Your task to perform on an android device: open app "Pandora - Music & Podcasts" Image 0: 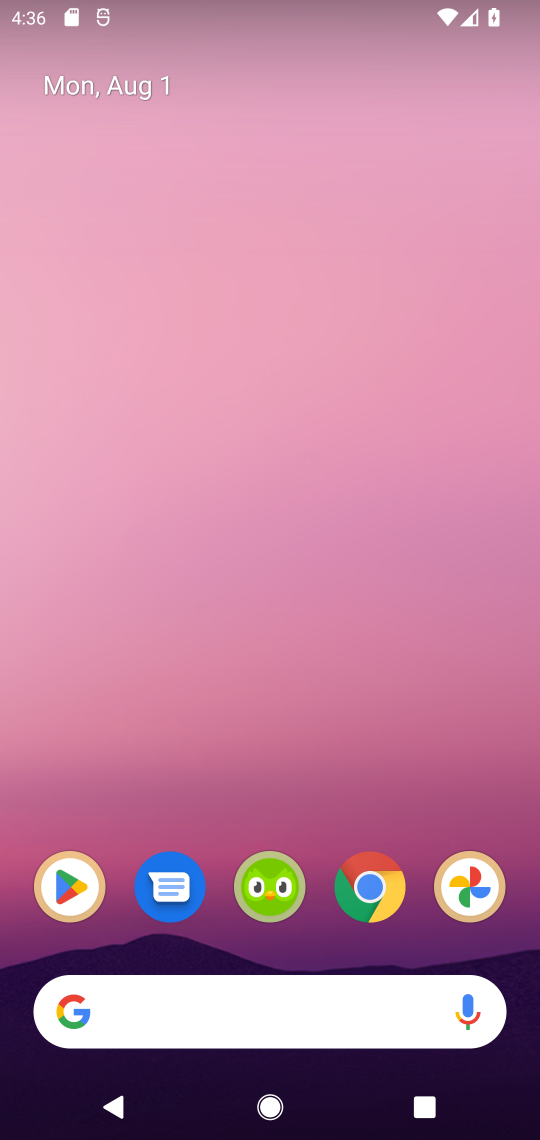
Step 0: click (38, 839)
Your task to perform on an android device: open app "Pandora - Music & Podcasts" Image 1: 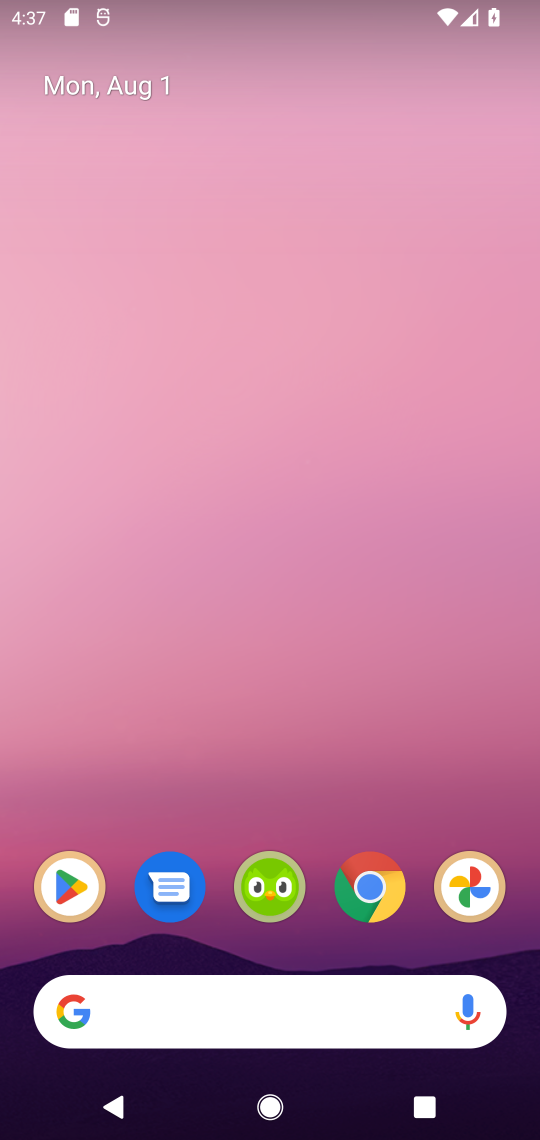
Step 1: click (53, 898)
Your task to perform on an android device: open app "Pandora - Music & Podcasts" Image 2: 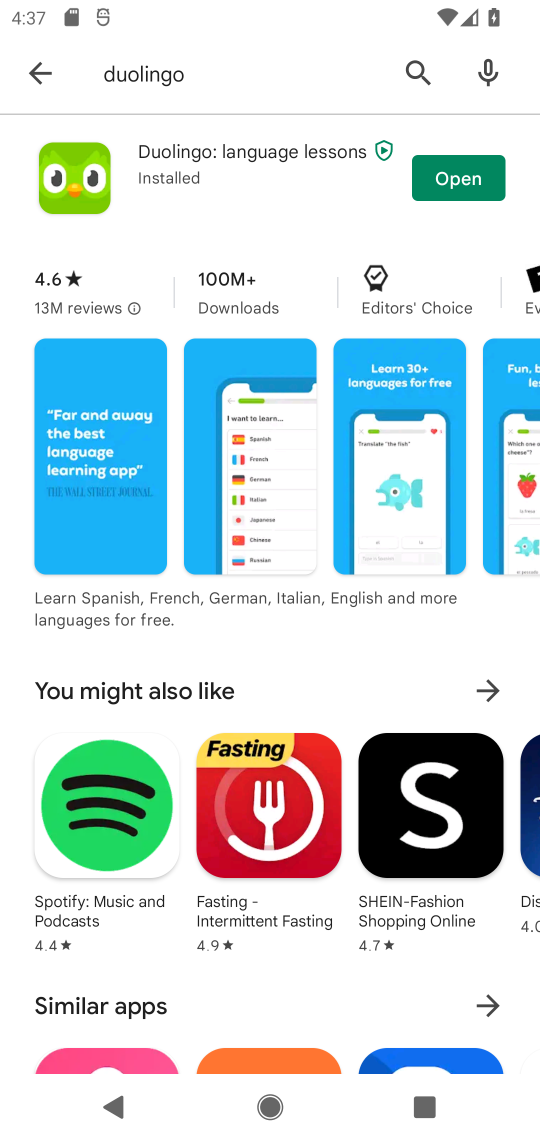
Step 2: click (25, 66)
Your task to perform on an android device: open app "Pandora - Music & Podcasts" Image 3: 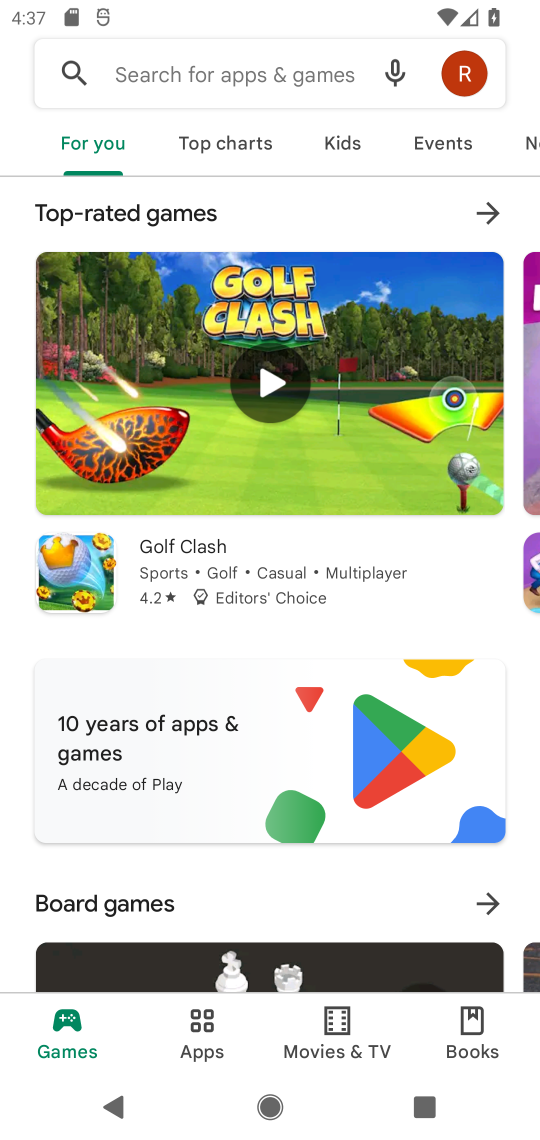
Step 3: click (133, 66)
Your task to perform on an android device: open app "Pandora - Music & Podcasts" Image 4: 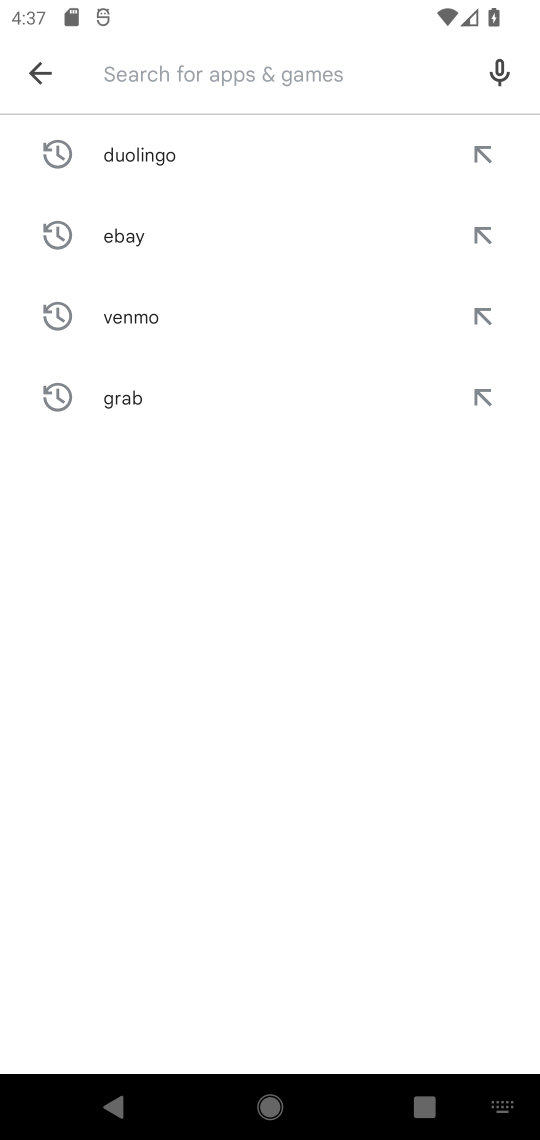
Step 4: type "Pandora"
Your task to perform on an android device: open app "Pandora - Music & Podcasts" Image 5: 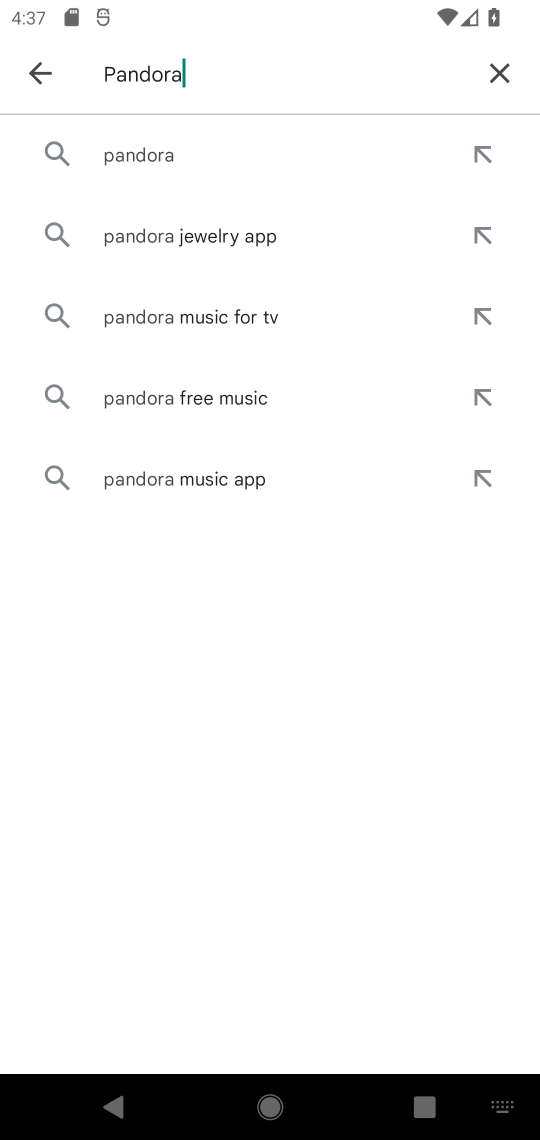
Step 5: click (186, 132)
Your task to perform on an android device: open app "Pandora - Music & Podcasts" Image 6: 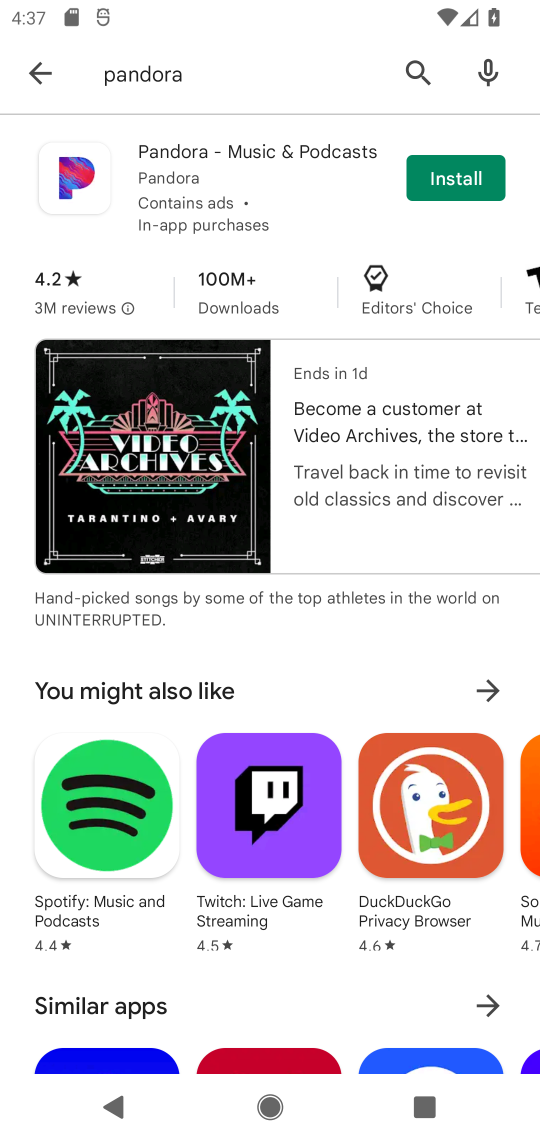
Step 6: task complete